Your task to perform on an android device: toggle translation in the chrome app Image 0: 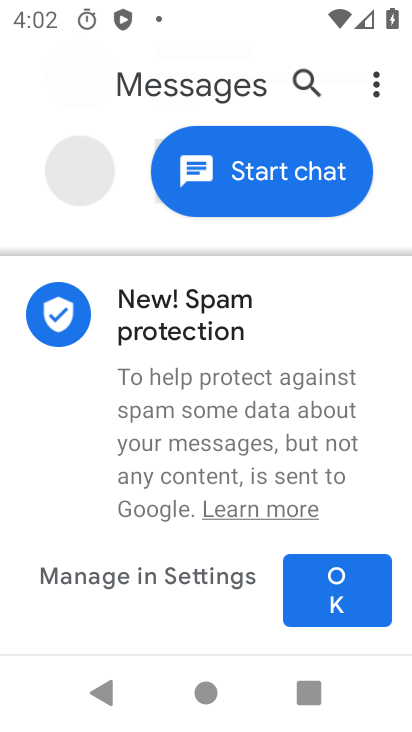
Step 0: press home button
Your task to perform on an android device: toggle translation in the chrome app Image 1: 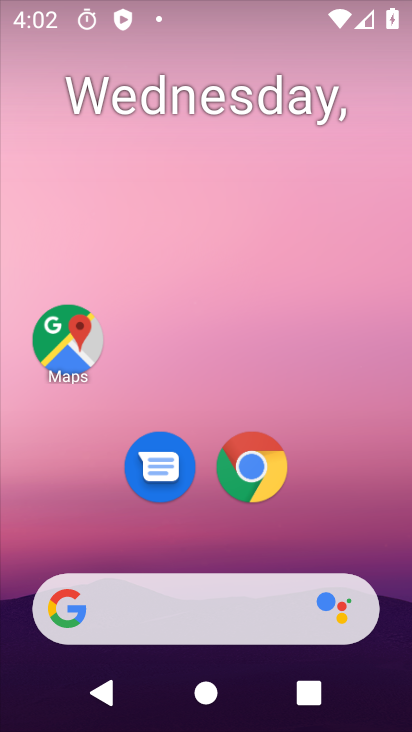
Step 1: click (251, 482)
Your task to perform on an android device: toggle translation in the chrome app Image 2: 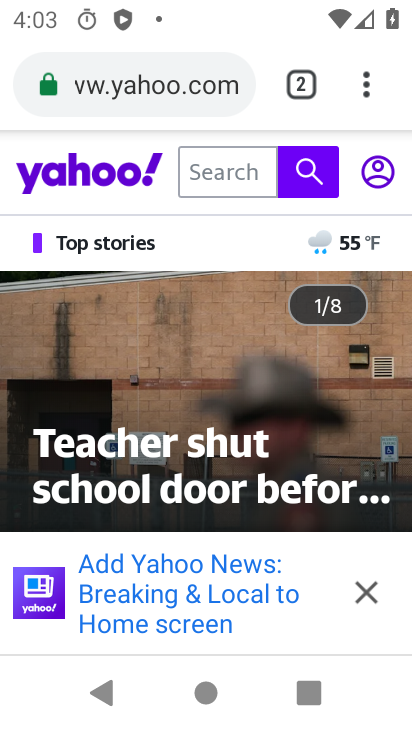
Step 2: click (366, 64)
Your task to perform on an android device: toggle translation in the chrome app Image 3: 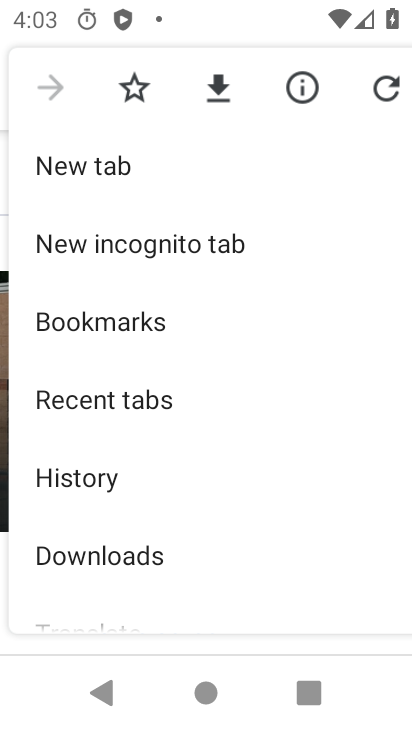
Step 3: drag from (268, 474) to (238, 126)
Your task to perform on an android device: toggle translation in the chrome app Image 4: 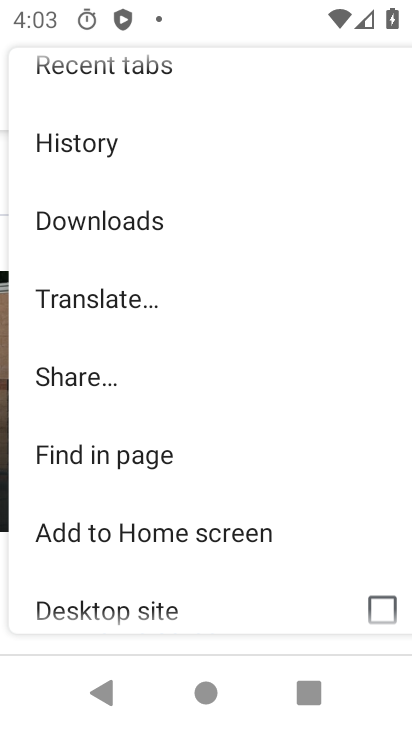
Step 4: drag from (181, 531) to (231, 211)
Your task to perform on an android device: toggle translation in the chrome app Image 5: 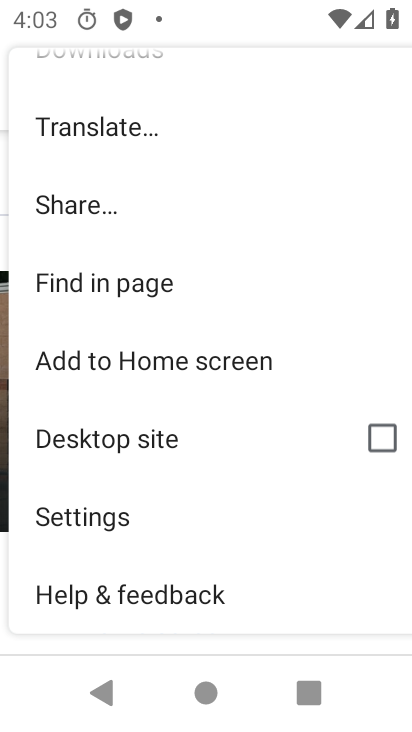
Step 5: click (132, 512)
Your task to perform on an android device: toggle translation in the chrome app Image 6: 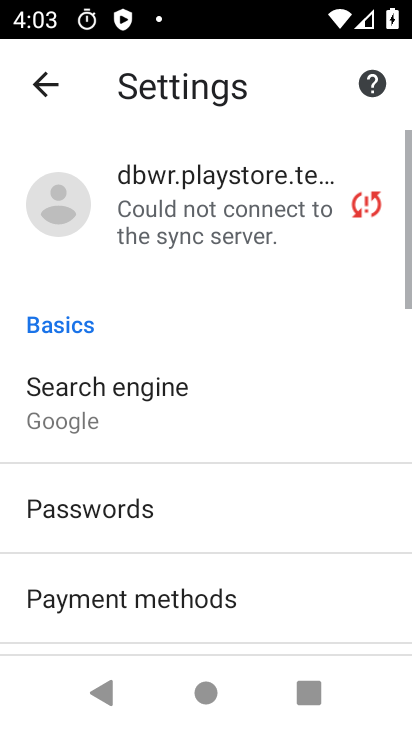
Step 6: drag from (208, 489) to (237, 4)
Your task to perform on an android device: toggle translation in the chrome app Image 7: 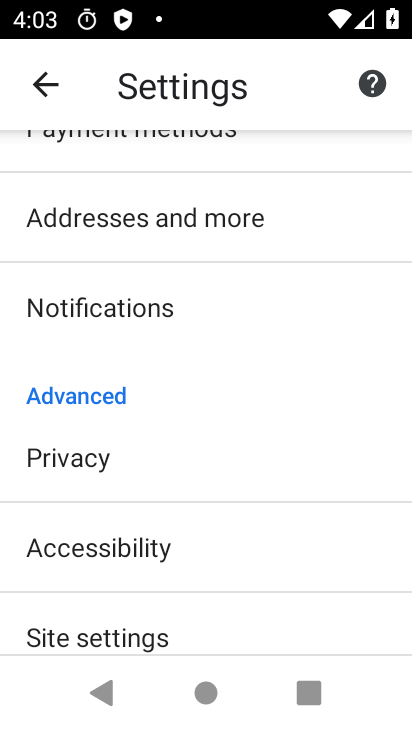
Step 7: drag from (208, 463) to (223, 163)
Your task to perform on an android device: toggle translation in the chrome app Image 8: 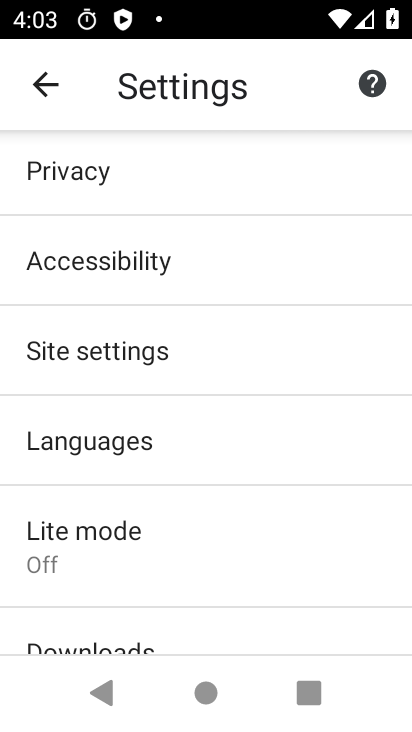
Step 8: click (130, 468)
Your task to perform on an android device: toggle translation in the chrome app Image 9: 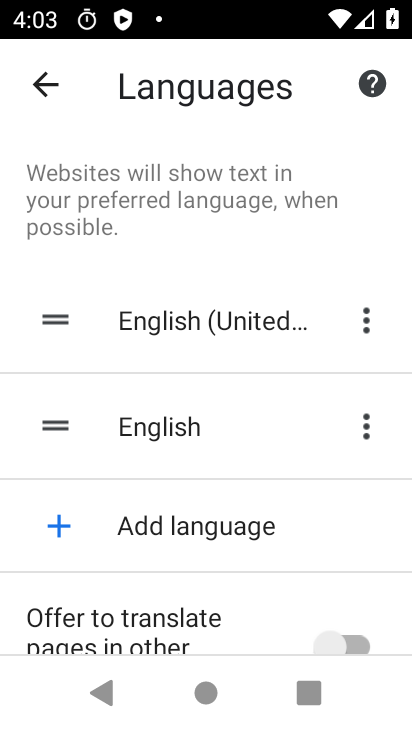
Step 9: click (365, 635)
Your task to perform on an android device: toggle translation in the chrome app Image 10: 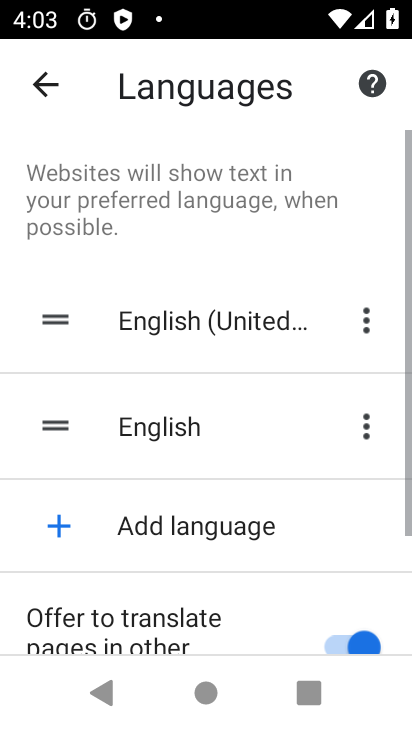
Step 10: task complete